Your task to perform on an android device: change the clock display to show seconds Image 0: 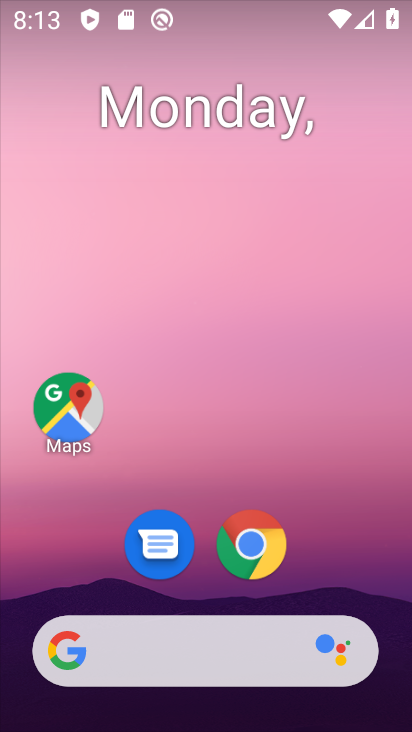
Step 0: drag from (312, 503) to (359, 87)
Your task to perform on an android device: change the clock display to show seconds Image 1: 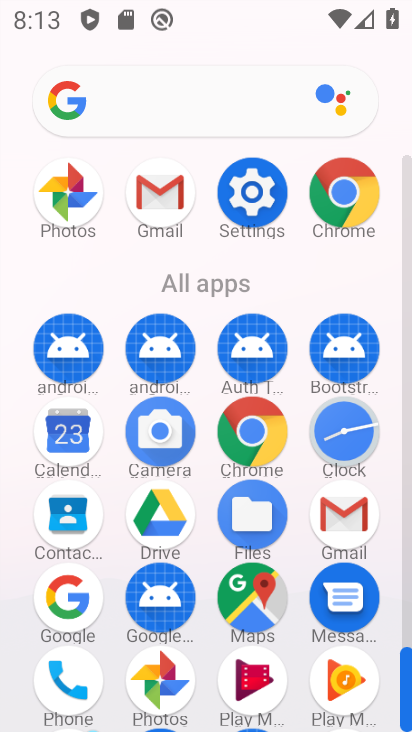
Step 1: click (337, 428)
Your task to perform on an android device: change the clock display to show seconds Image 2: 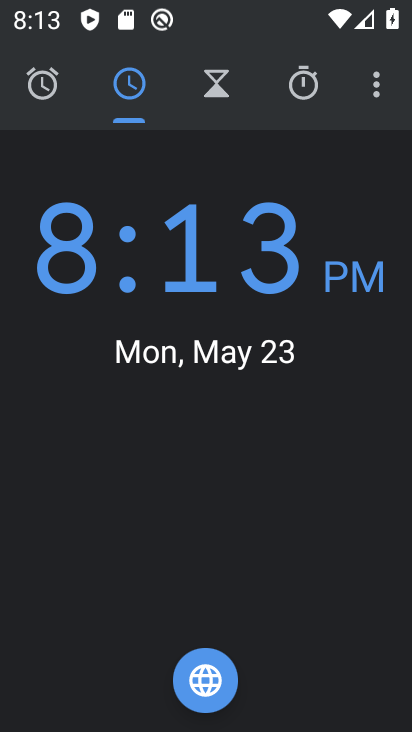
Step 2: click (374, 74)
Your task to perform on an android device: change the clock display to show seconds Image 3: 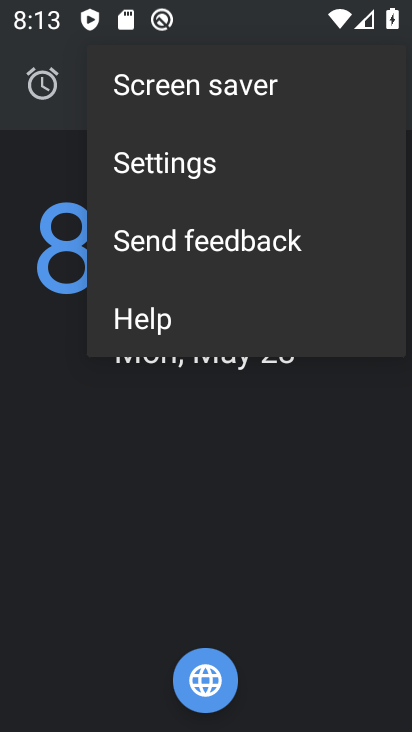
Step 3: click (176, 181)
Your task to perform on an android device: change the clock display to show seconds Image 4: 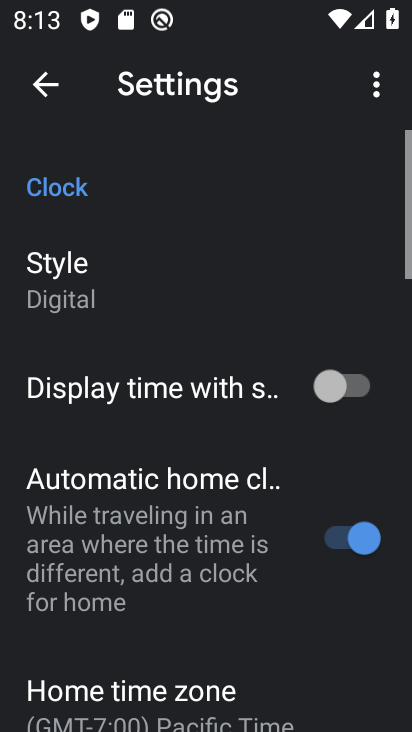
Step 4: click (333, 386)
Your task to perform on an android device: change the clock display to show seconds Image 5: 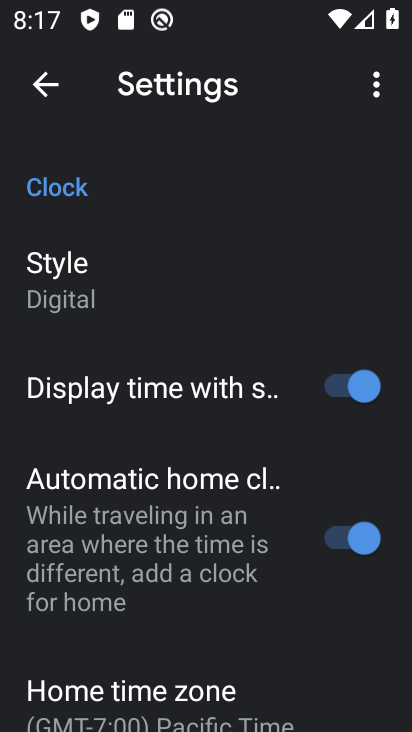
Step 5: task complete